Your task to perform on an android device: Do I have any events tomorrow? Image 0: 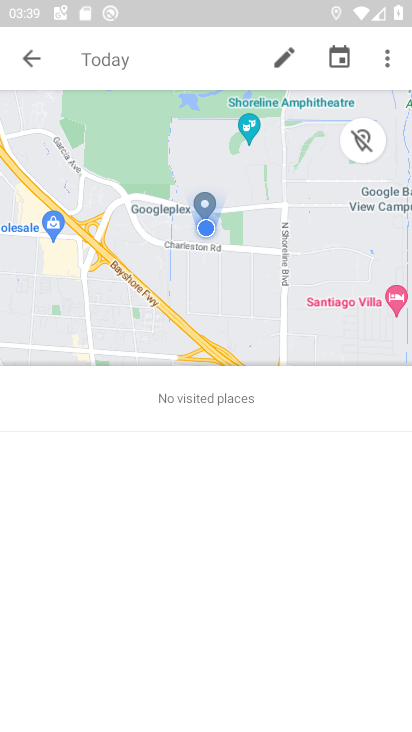
Step 0: press home button
Your task to perform on an android device: Do I have any events tomorrow? Image 1: 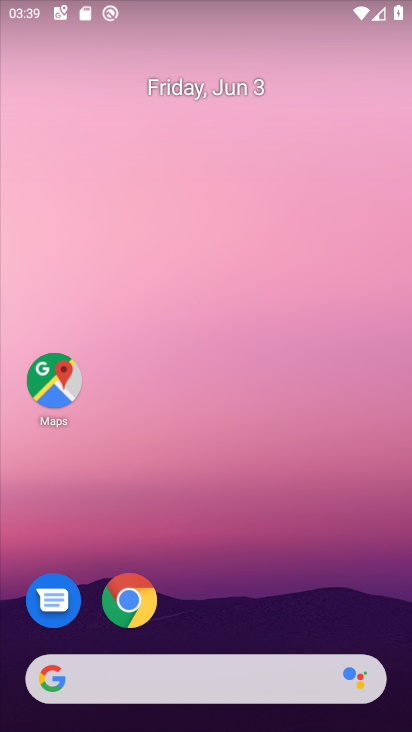
Step 1: drag from (239, 575) to (255, 119)
Your task to perform on an android device: Do I have any events tomorrow? Image 2: 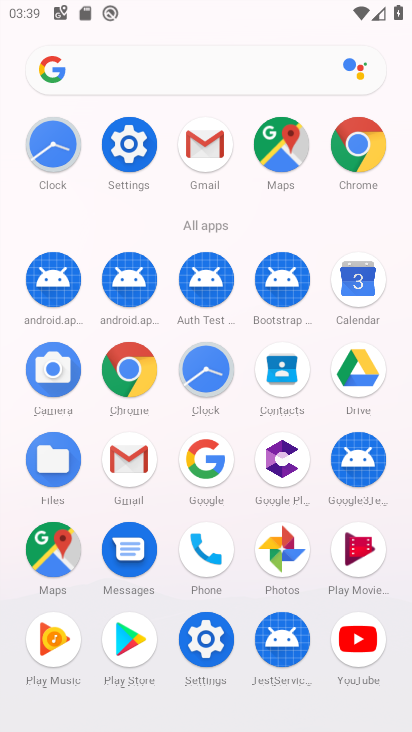
Step 2: click (369, 271)
Your task to perform on an android device: Do I have any events tomorrow? Image 3: 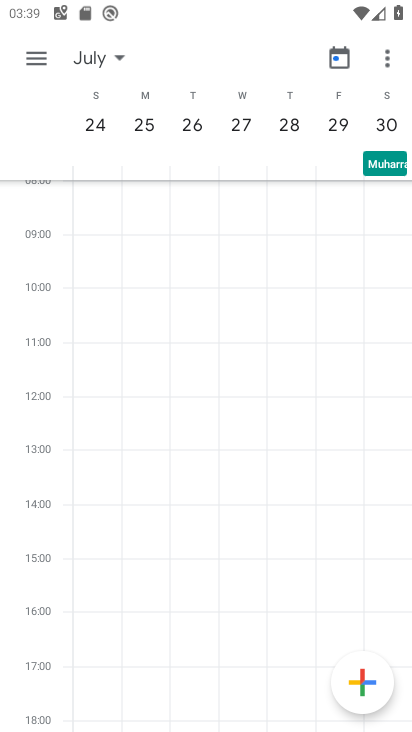
Step 3: click (103, 54)
Your task to perform on an android device: Do I have any events tomorrow? Image 4: 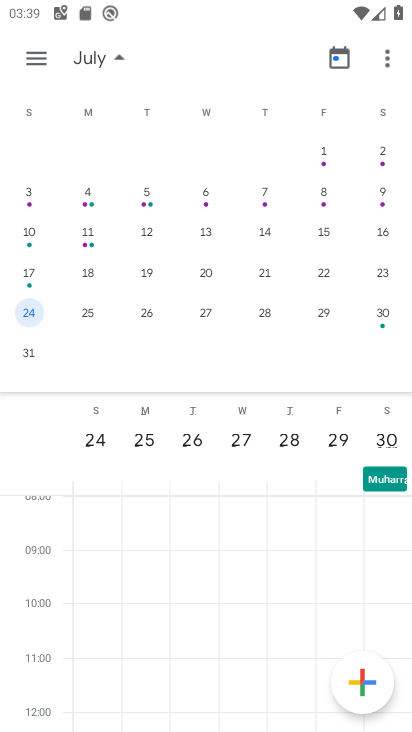
Step 4: drag from (40, 273) to (352, 257)
Your task to perform on an android device: Do I have any events tomorrow? Image 5: 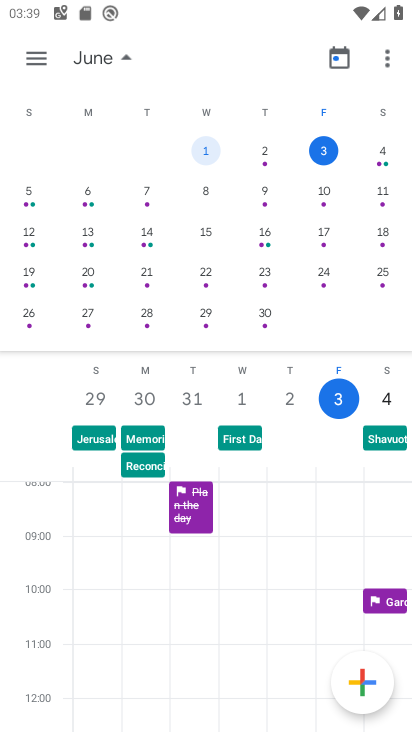
Step 5: click (381, 146)
Your task to perform on an android device: Do I have any events tomorrow? Image 6: 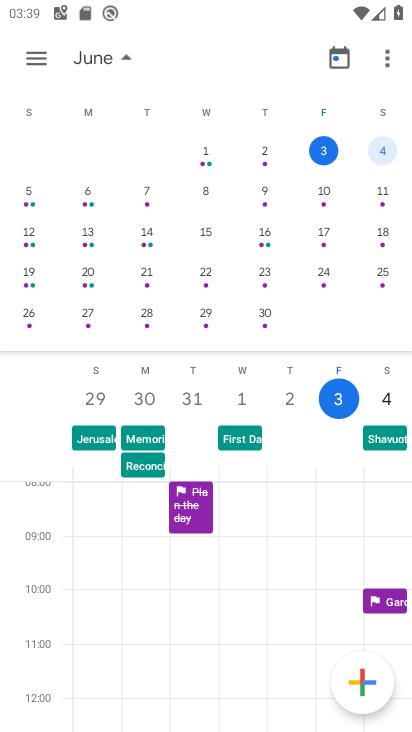
Step 6: click (377, 148)
Your task to perform on an android device: Do I have any events tomorrow? Image 7: 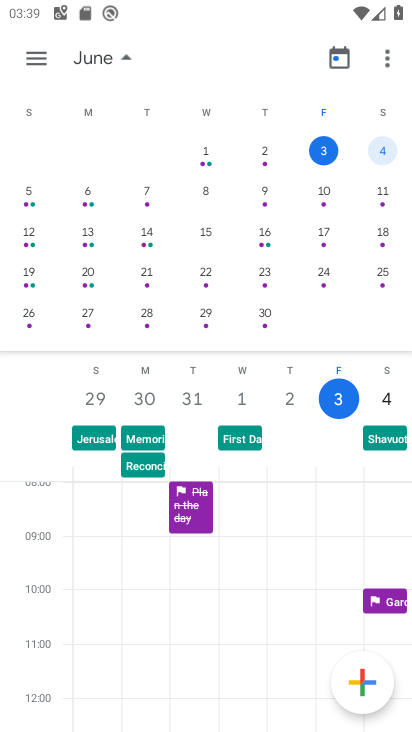
Step 7: click (391, 407)
Your task to perform on an android device: Do I have any events tomorrow? Image 8: 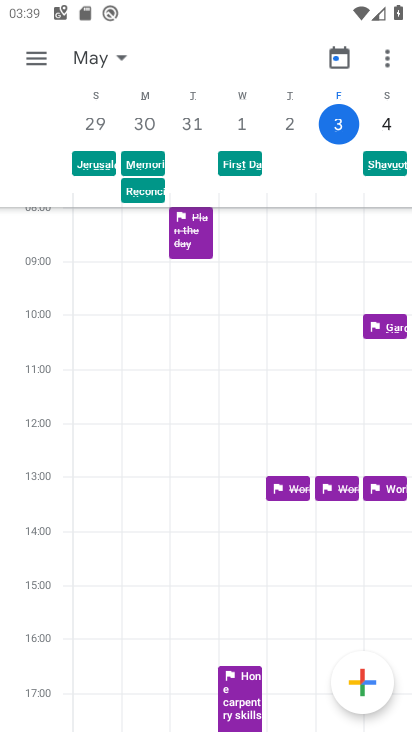
Step 8: click (385, 128)
Your task to perform on an android device: Do I have any events tomorrow? Image 9: 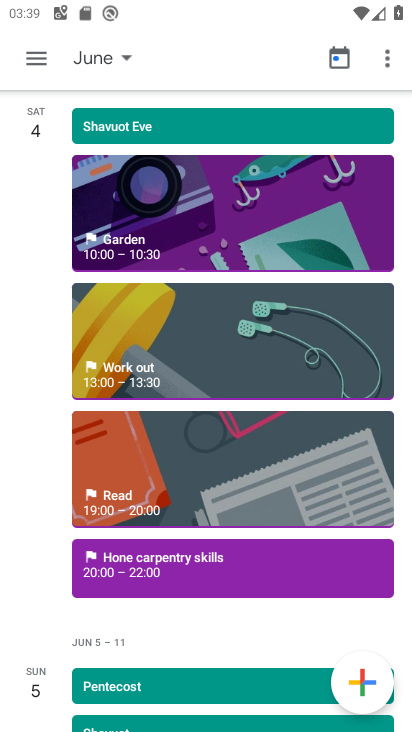
Step 9: task complete